Your task to perform on an android device: turn off sleep mode Image 0: 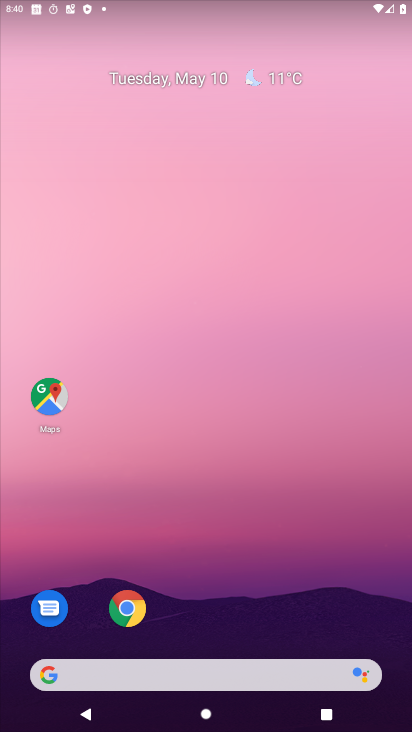
Step 0: drag from (203, 660) to (169, 165)
Your task to perform on an android device: turn off sleep mode Image 1: 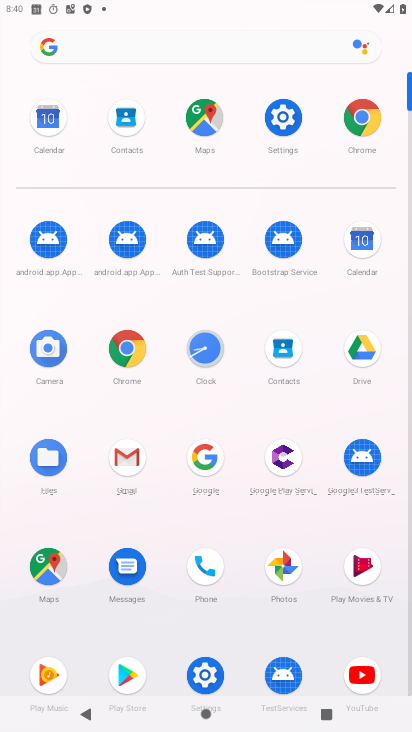
Step 1: click (213, 667)
Your task to perform on an android device: turn off sleep mode Image 2: 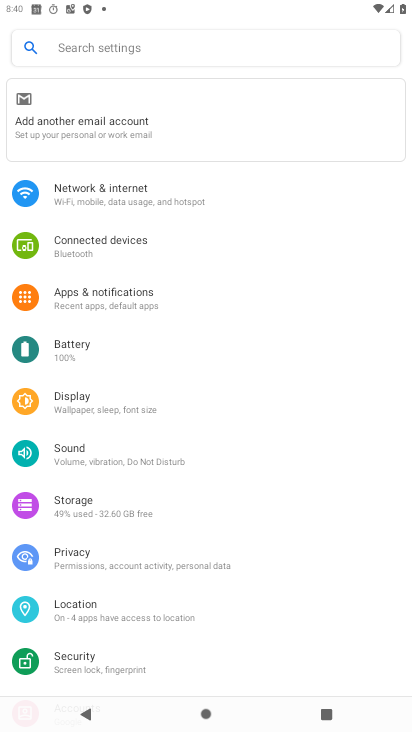
Step 2: click (84, 397)
Your task to perform on an android device: turn off sleep mode Image 3: 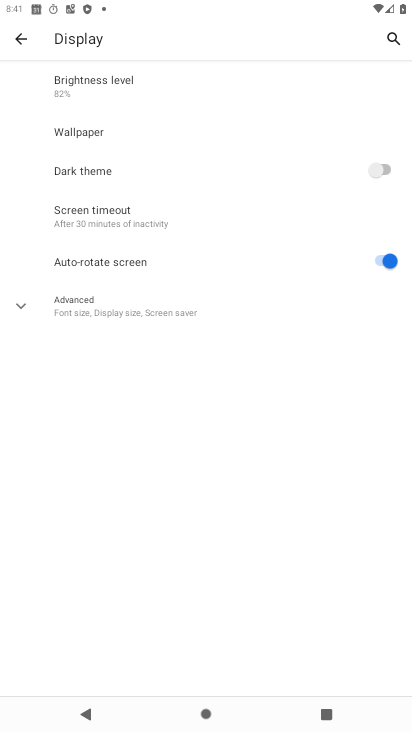
Step 3: click (83, 317)
Your task to perform on an android device: turn off sleep mode Image 4: 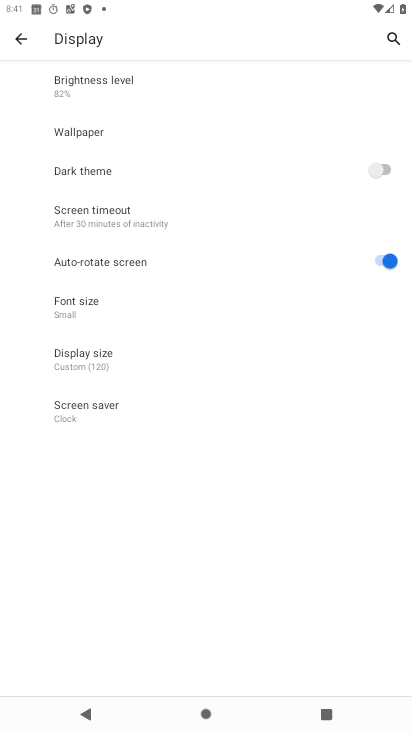
Step 4: task complete